Your task to perform on an android device: make emails show in primary in the gmail app Image 0: 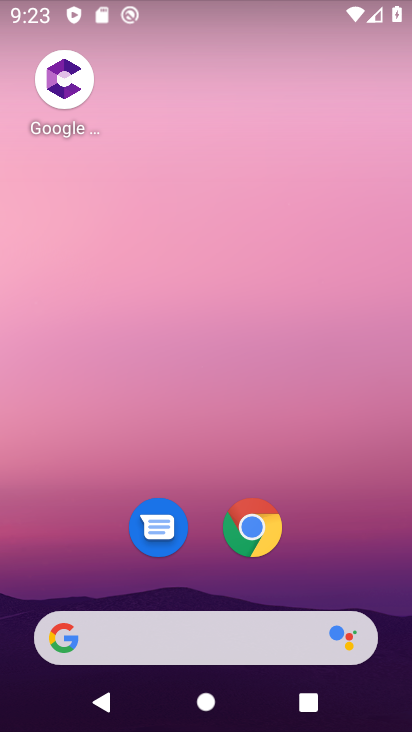
Step 0: drag from (327, 535) to (316, 8)
Your task to perform on an android device: make emails show in primary in the gmail app Image 1: 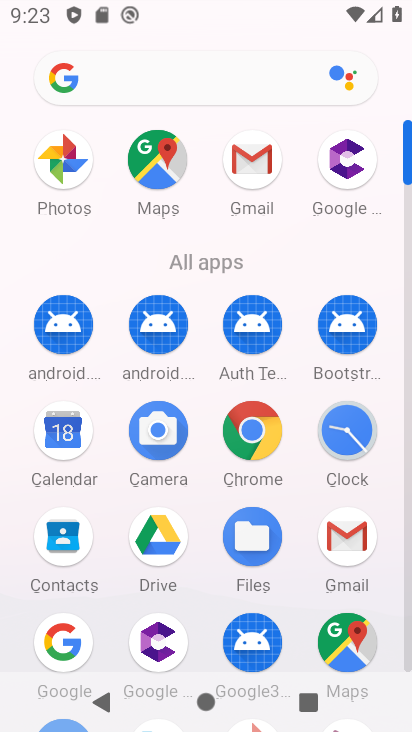
Step 1: click (256, 203)
Your task to perform on an android device: make emails show in primary in the gmail app Image 2: 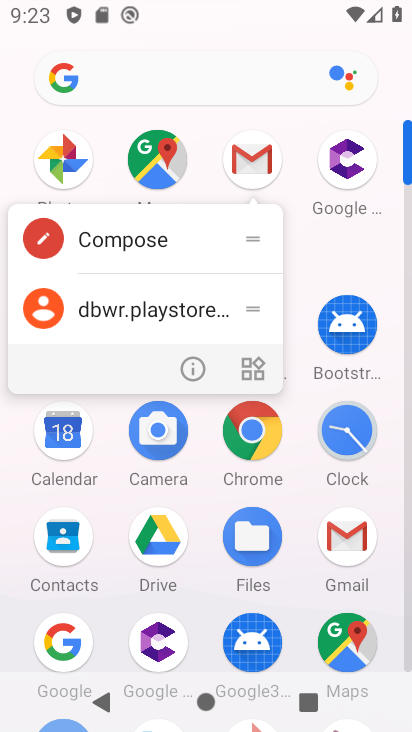
Step 2: click (257, 184)
Your task to perform on an android device: make emails show in primary in the gmail app Image 3: 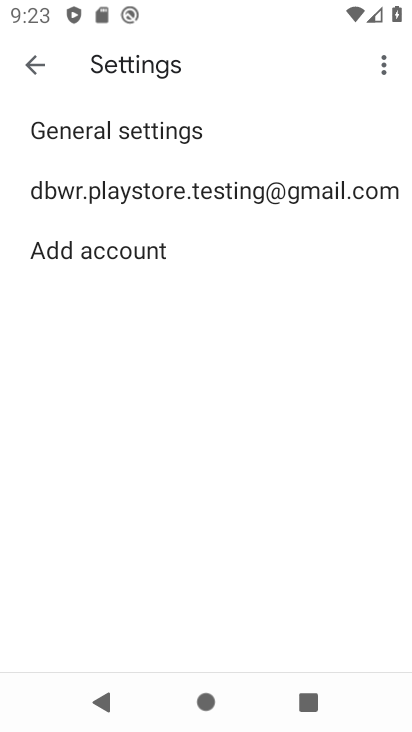
Step 3: click (50, 71)
Your task to perform on an android device: make emails show in primary in the gmail app Image 4: 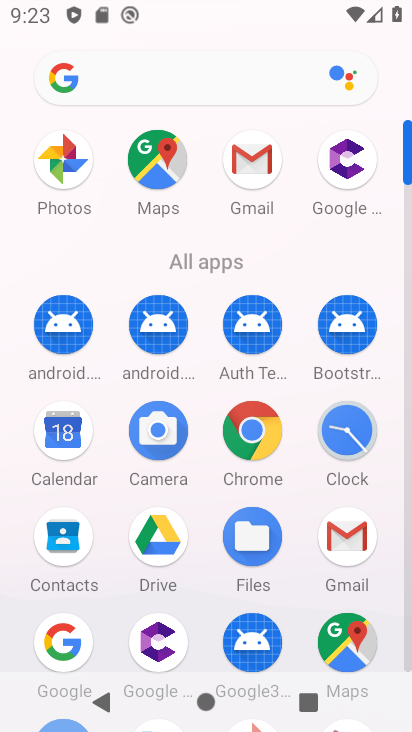
Step 4: click (253, 196)
Your task to perform on an android device: make emails show in primary in the gmail app Image 5: 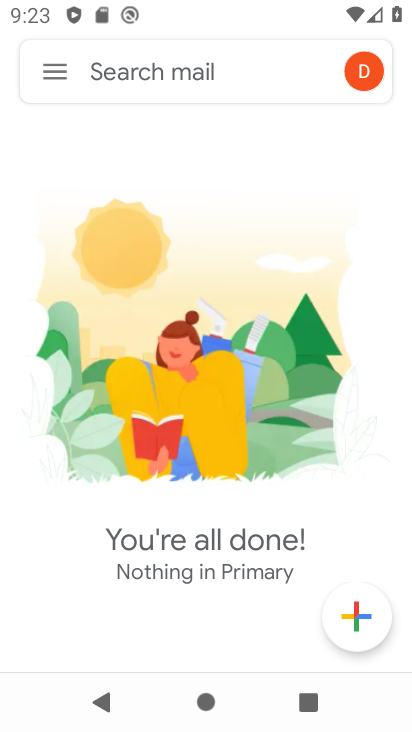
Step 5: click (46, 66)
Your task to perform on an android device: make emails show in primary in the gmail app Image 6: 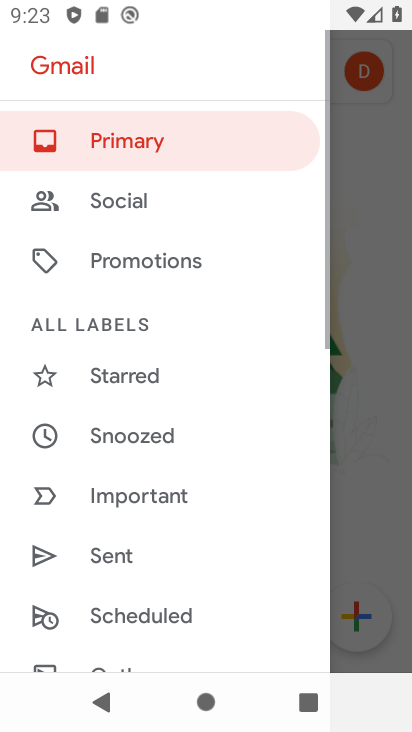
Step 6: drag from (172, 501) to (188, 66)
Your task to perform on an android device: make emails show in primary in the gmail app Image 7: 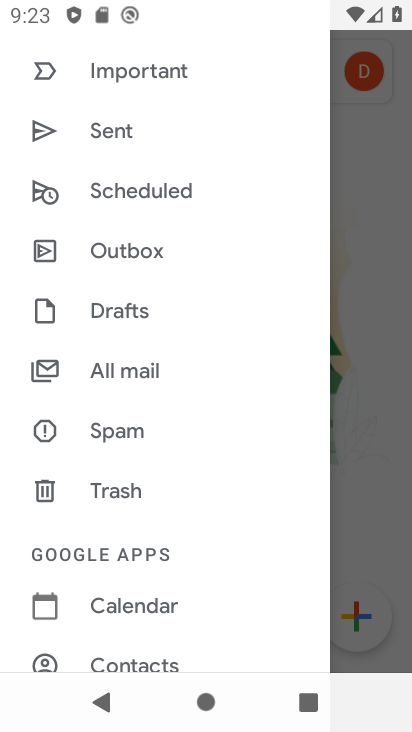
Step 7: drag from (201, 597) to (209, 420)
Your task to perform on an android device: make emails show in primary in the gmail app Image 8: 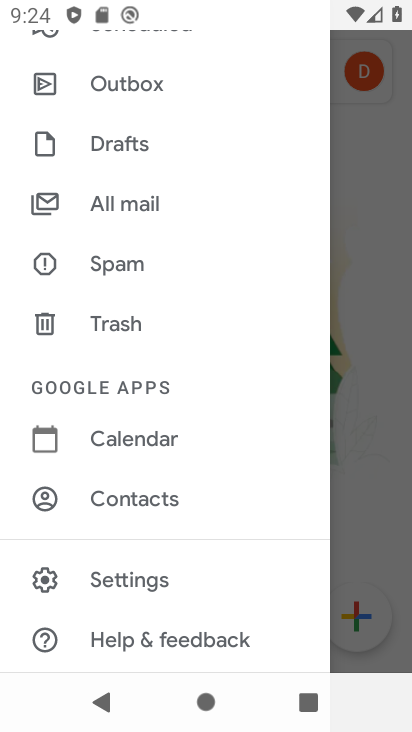
Step 8: click (195, 588)
Your task to perform on an android device: make emails show in primary in the gmail app Image 9: 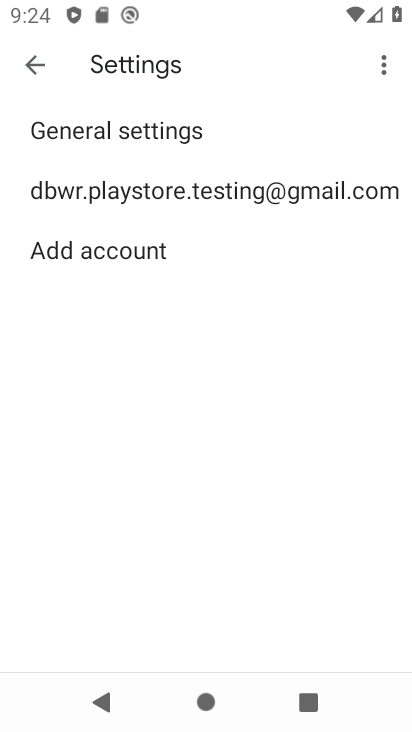
Step 9: click (280, 206)
Your task to perform on an android device: make emails show in primary in the gmail app Image 10: 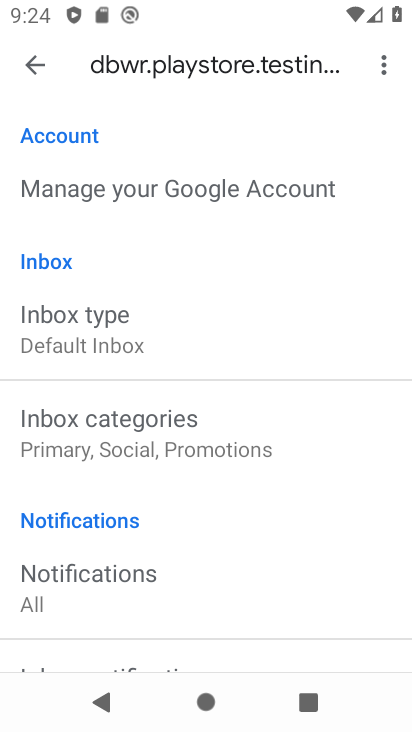
Step 10: task complete